Your task to perform on an android device: stop showing notifications on the lock screen Image 0: 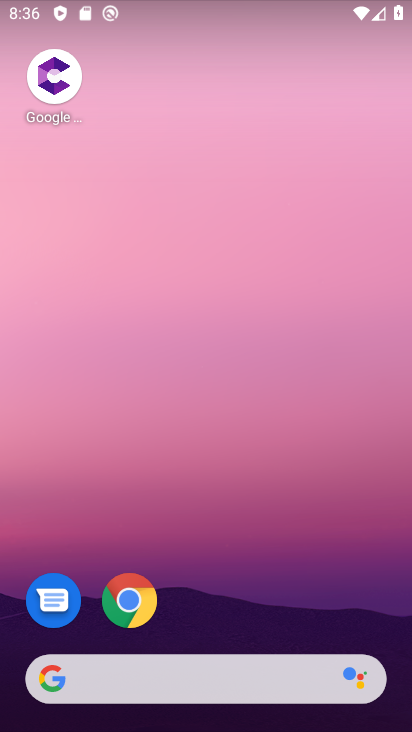
Step 0: drag from (221, 532) to (267, 163)
Your task to perform on an android device: stop showing notifications on the lock screen Image 1: 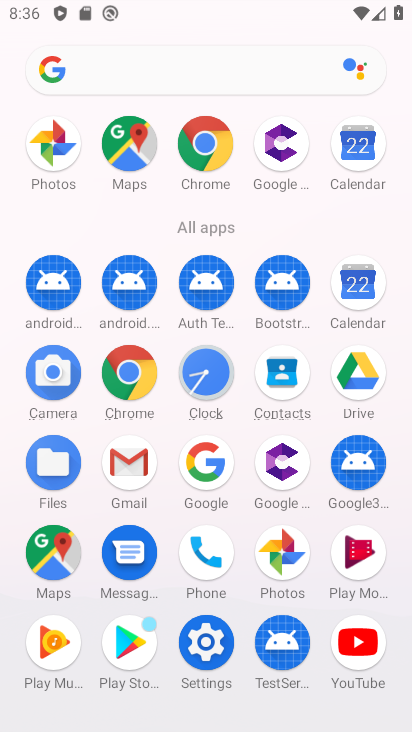
Step 1: click (204, 633)
Your task to perform on an android device: stop showing notifications on the lock screen Image 2: 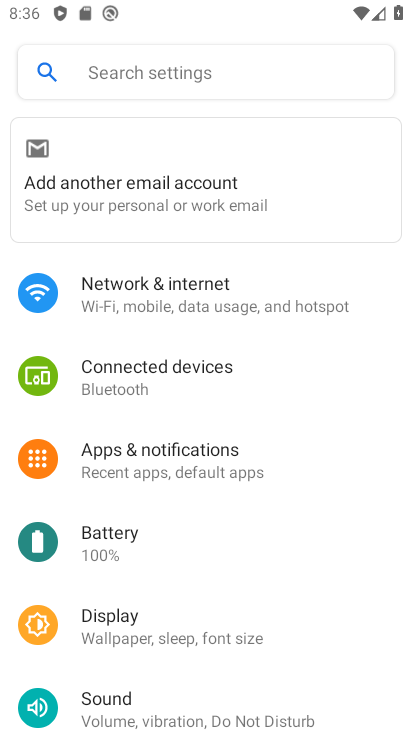
Step 2: click (187, 448)
Your task to perform on an android device: stop showing notifications on the lock screen Image 3: 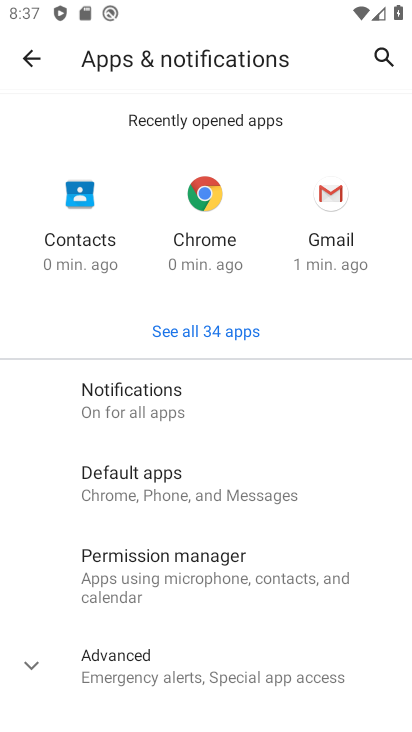
Step 3: click (185, 414)
Your task to perform on an android device: stop showing notifications on the lock screen Image 4: 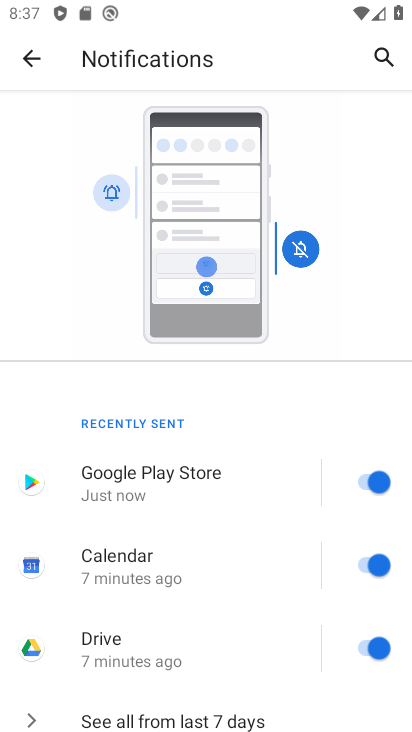
Step 4: drag from (196, 580) to (247, 194)
Your task to perform on an android device: stop showing notifications on the lock screen Image 5: 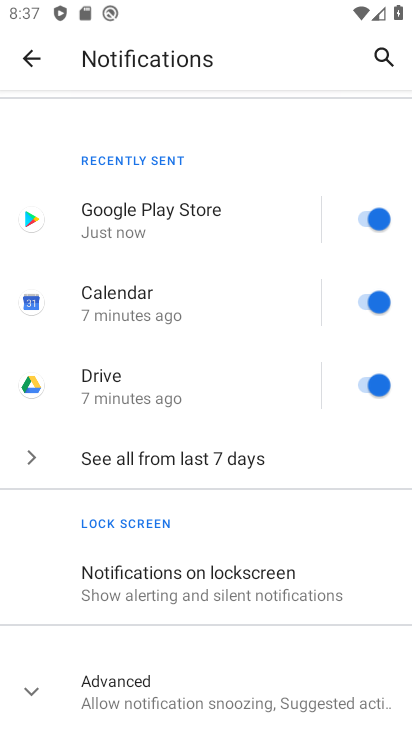
Step 5: click (166, 583)
Your task to perform on an android device: stop showing notifications on the lock screen Image 6: 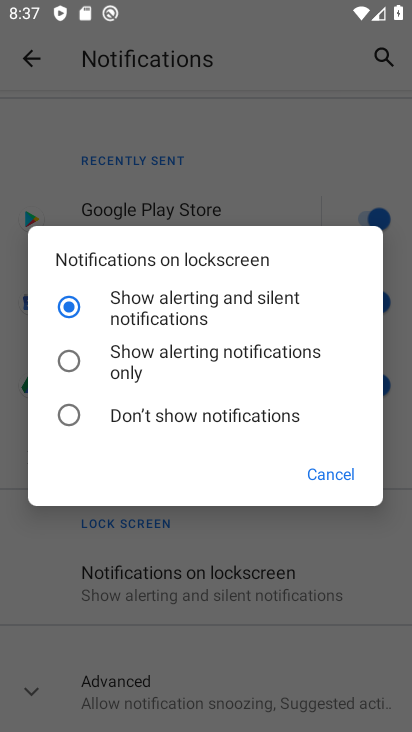
Step 6: click (155, 424)
Your task to perform on an android device: stop showing notifications on the lock screen Image 7: 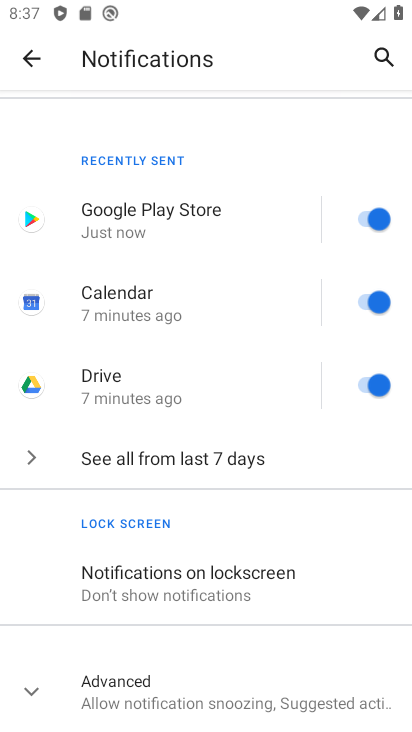
Step 7: task complete